Your task to perform on an android device: Search for Mexican restaurants on Maps Image 0: 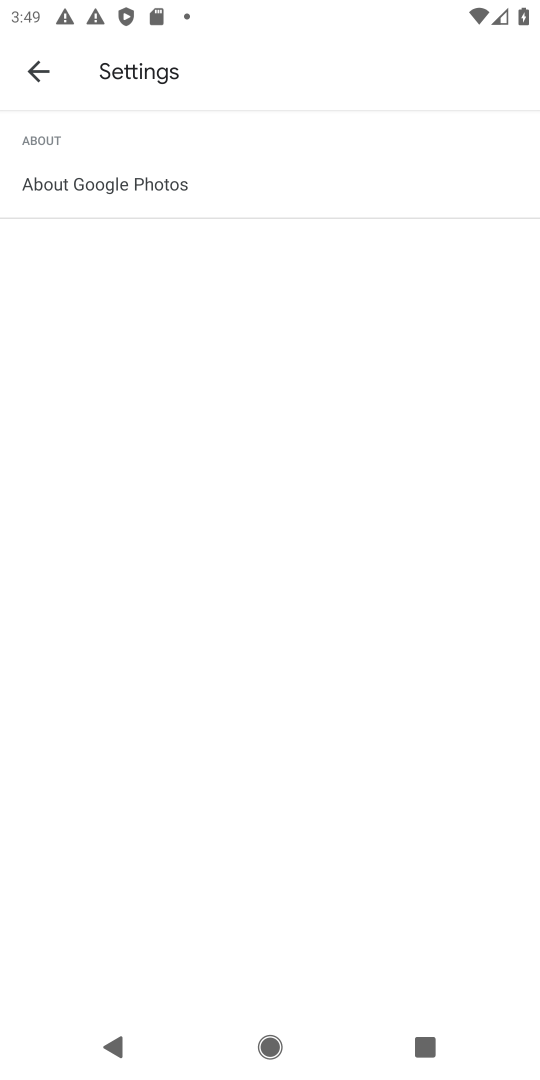
Step 0: press home button
Your task to perform on an android device: Search for Mexican restaurants on Maps Image 1: 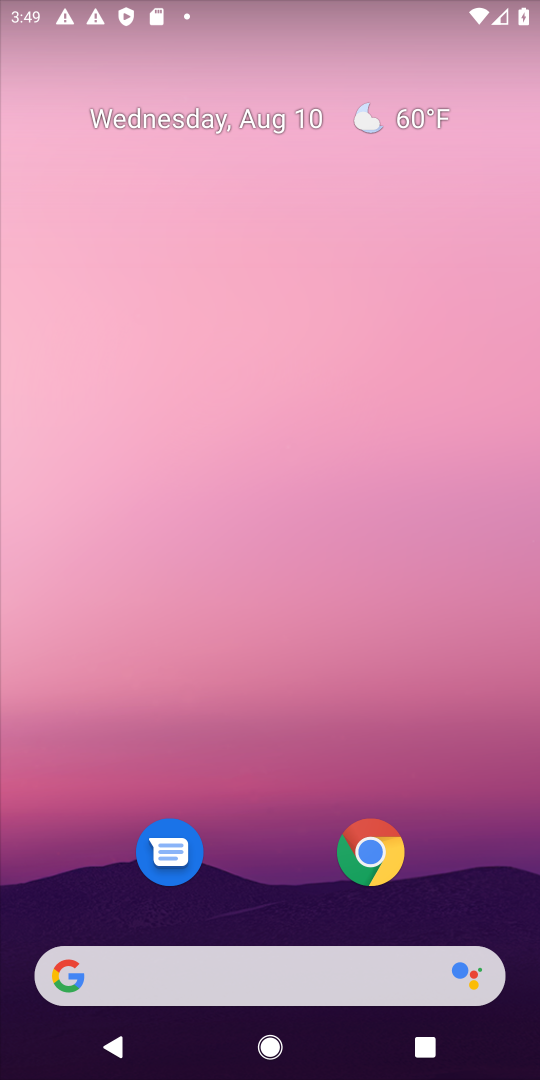
Step 1: drag from (252, 810) to (328, 128)
Your task to perform on an android device: Search for Mexican restaurants on Maps Image 2: 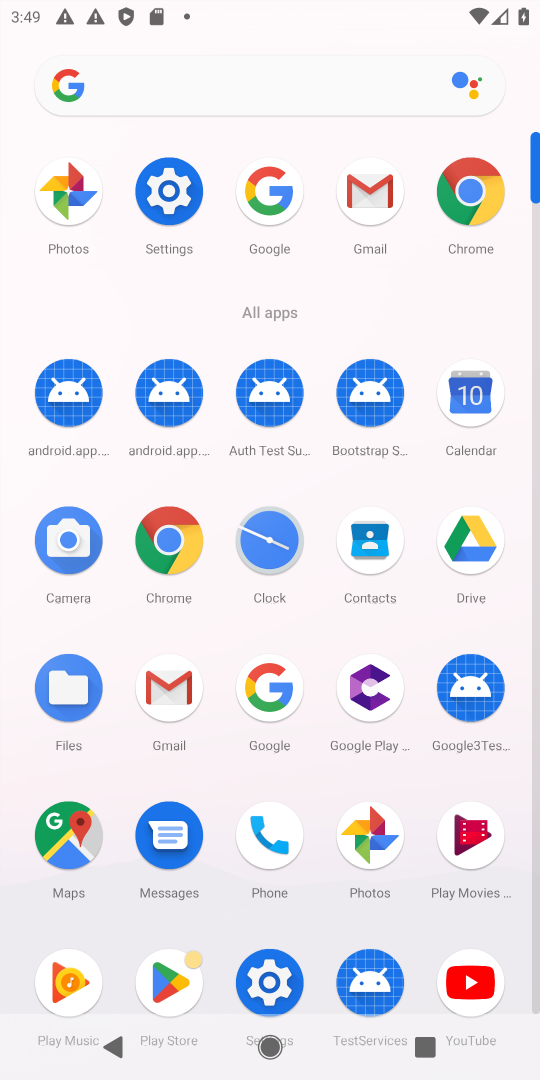
Step 2: click (75, 846)
Your task to perform on an android device: Search for Mexican restaurants on Maps Image 3: 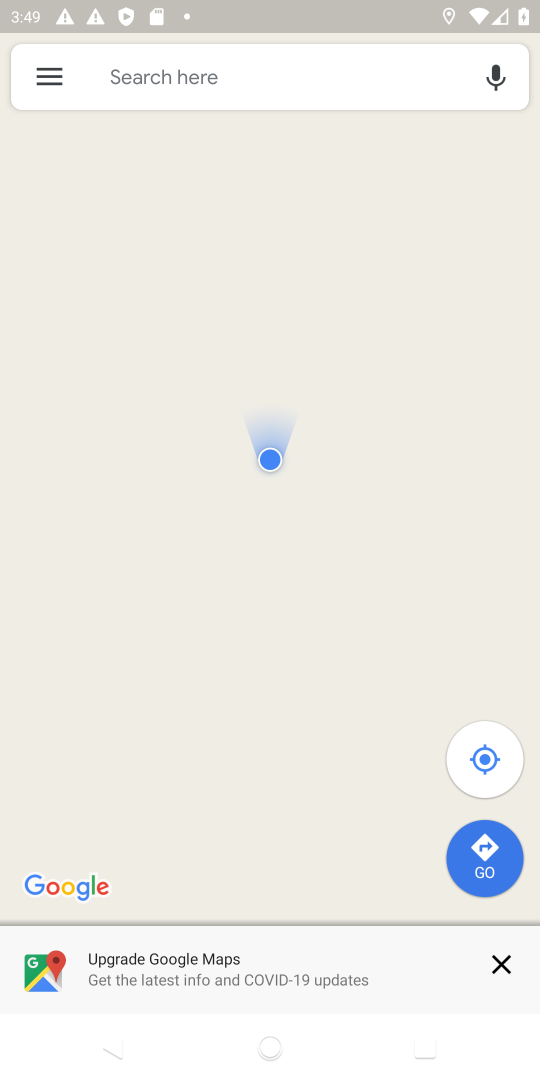
Step 3: click (155, 59)
Your task to perform on an android device: Search for Mexican restaurants on Maps Image 4: 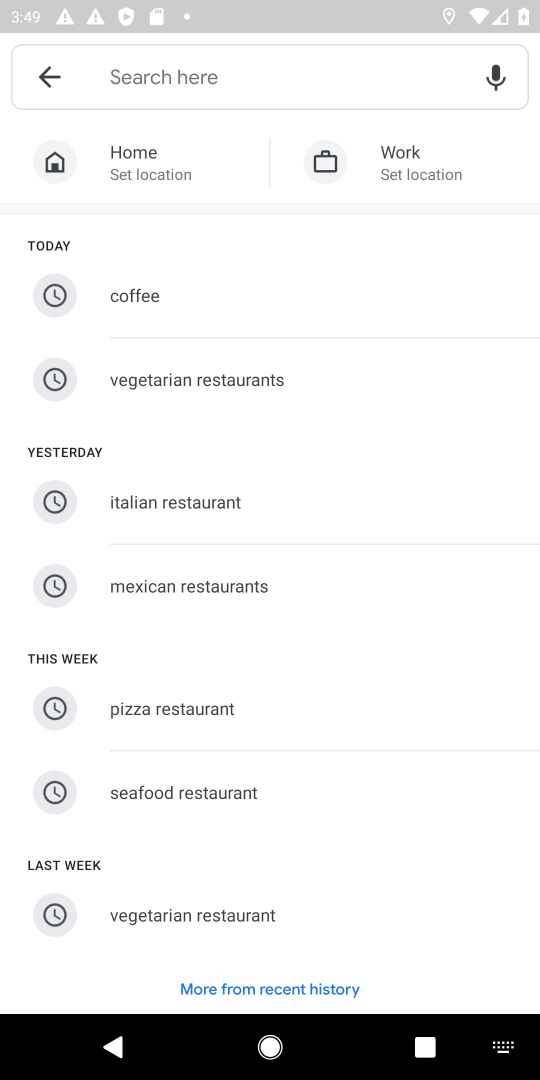
Step 4: click (228, 589)
Your task to perform on an android device: Search for Mexican restaurants on Maps Image 5: 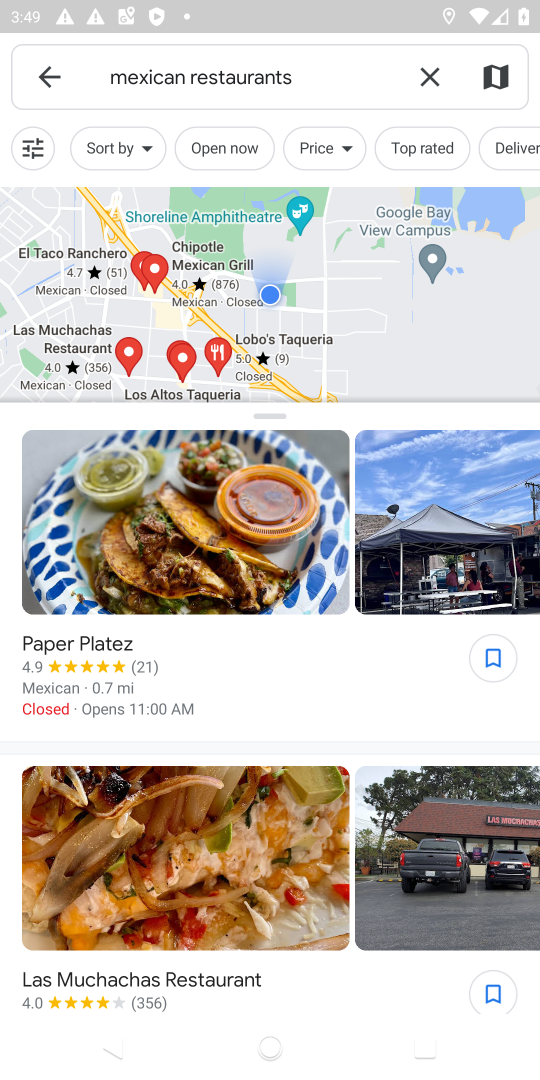
Step 5: task complete